Your task to perform on an android device: Go to sound settings Image 0: 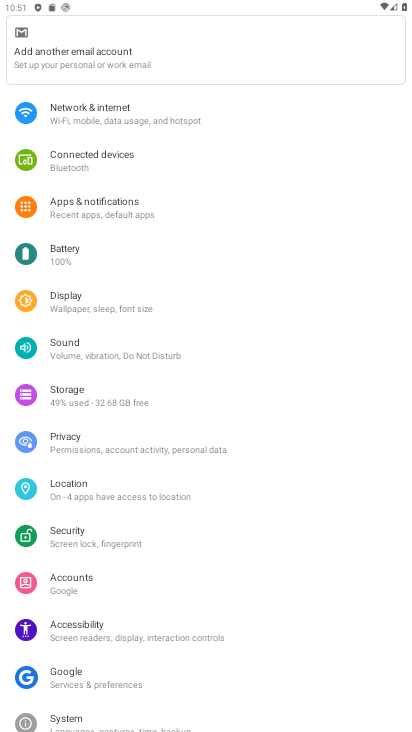
Step 0: click (97, 352)
Your task to perform on an android device: Go to sound settings Image 1: 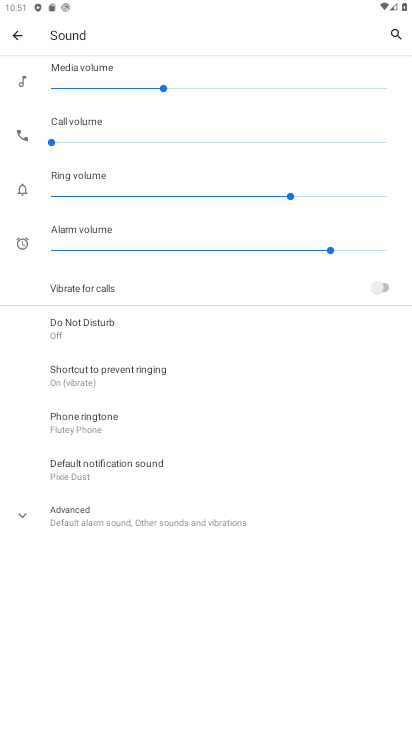
Step 1: task complete